Your task to perform on an android device: toggle notification dots Image 0: 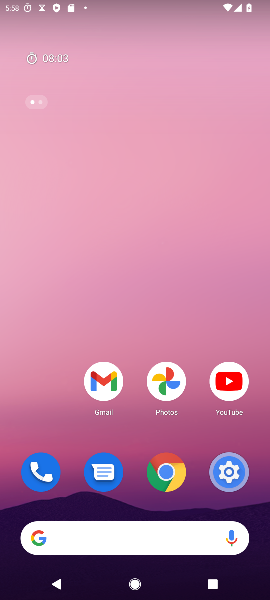
Step 0: press home button
Your task to perform on an android device: toggle notification dots Image 1: 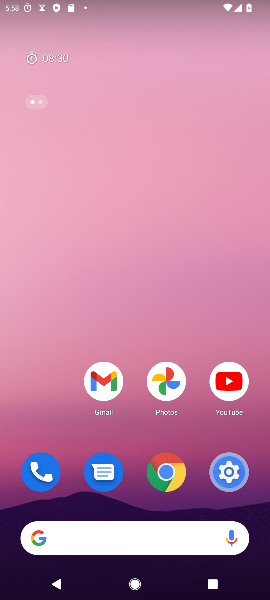
Step 1: click (231, 471)
Your task to perform on an android device: toggle notification dots Image 2: 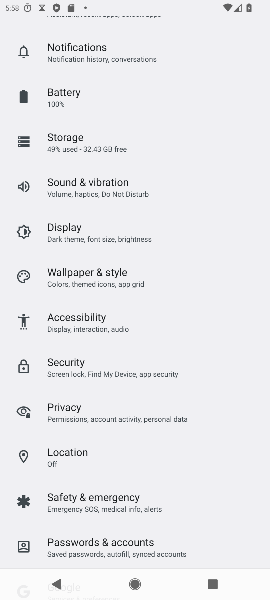
Step 2: click (73, 54)
Your task to perform on an android device: toggle notification dots Image 3: 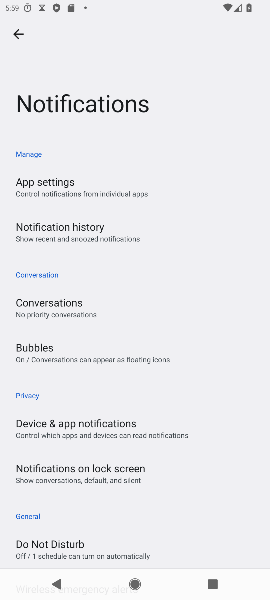
Step 3: drag from (215, 457) to (119, 88)
Your task to perform on an android device: toggle notification dots Image 4: 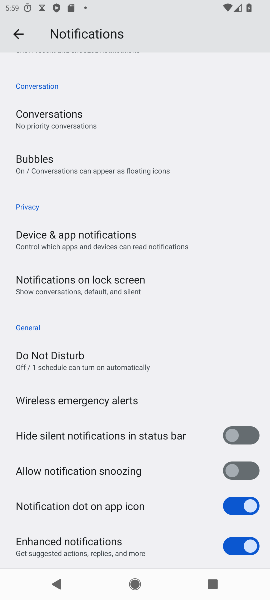
Step 4: click (253, 504)
Your task to perform on an android device: toggle notification dots Image 5: 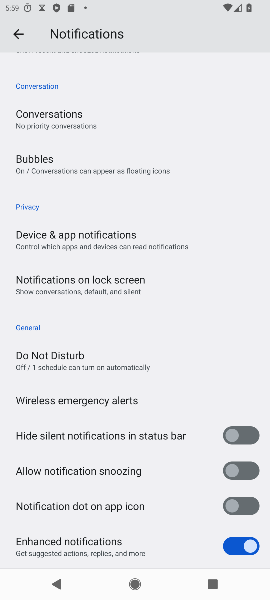
Step 5: task complete